Your task to perform on an android device: allow cookies in the chrome app Image 0: 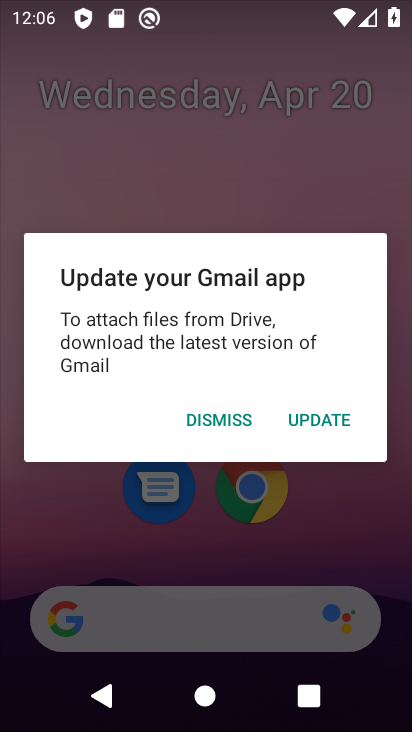
Step 0: press home button
Your task to perform on an android device: allow cookies in the chrome app Image 1: 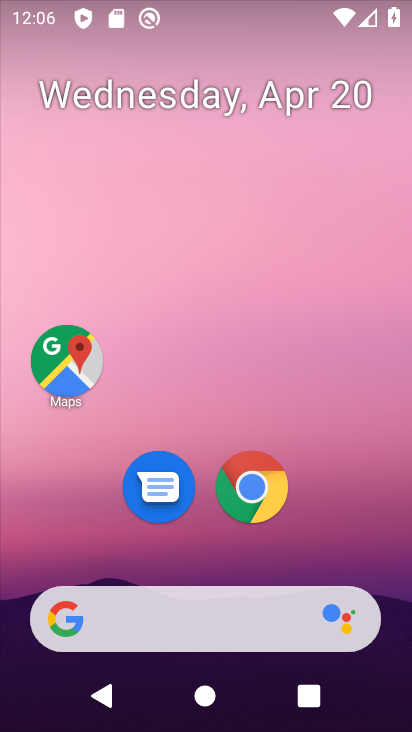
Step 1: drag from (368, 529) to (287, 58)
Your task to perform on an android device: allow cookies in the chrome app Image 2: 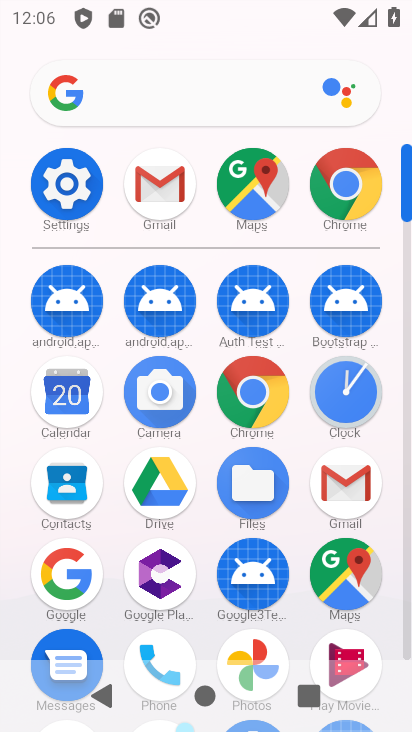
Step 2: click (345, 202)
Your task to perform on an android device: allow cookies in the chrome app Image 3: 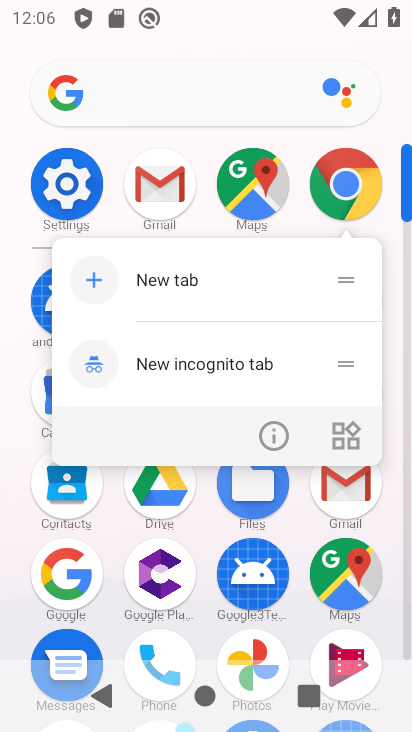
Step 3: click (345, 202)
Your task to perform on an android device: allow cookies in the chrome app Image 4: 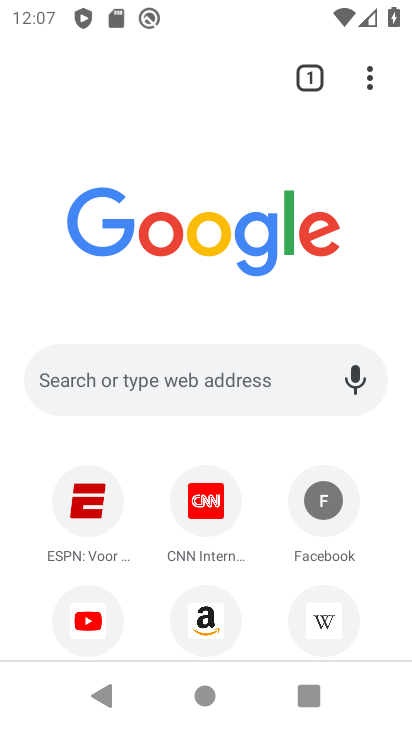
Step 4: click (369, 75)
Your task to perform on an android device: allow cookies in the chrome app Image 5: 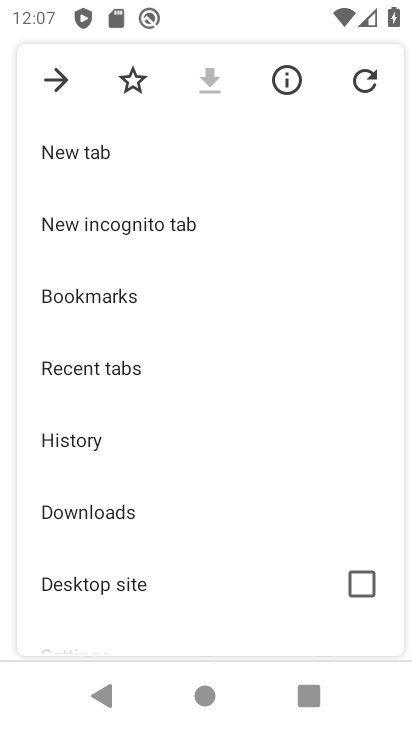
Step 5: click (157, 438)
Your task to perform on an android device: allow cookies in the chrome app Image 6: 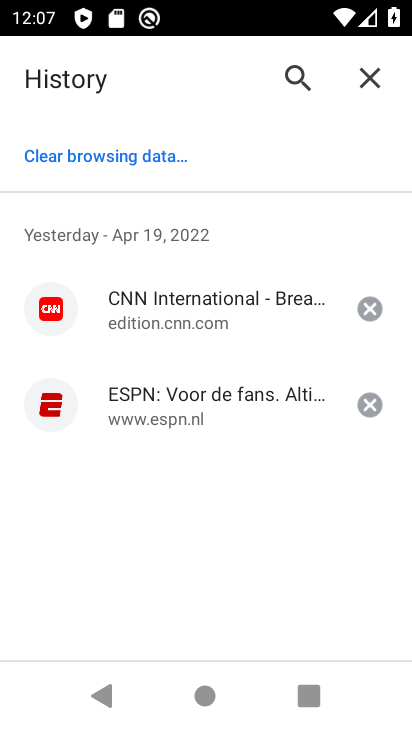
Step 6: click (168, 167)
Your task to perform on an android device: allow cookies in the chrome app Image 7: 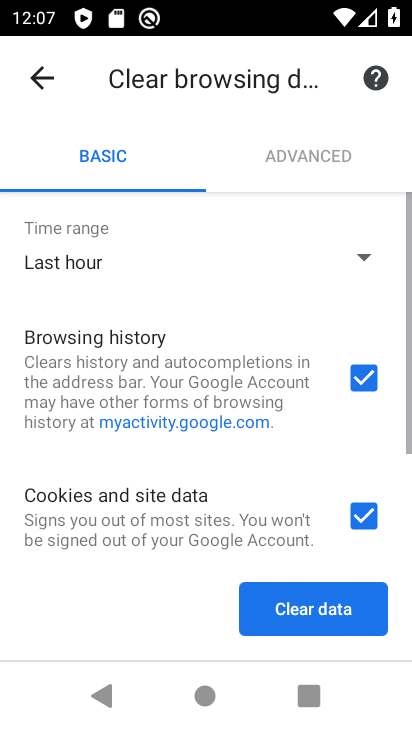
Step 7: click (308, 158)
Your task to perform on an android device: allow cookies in the chrome app Image 8: 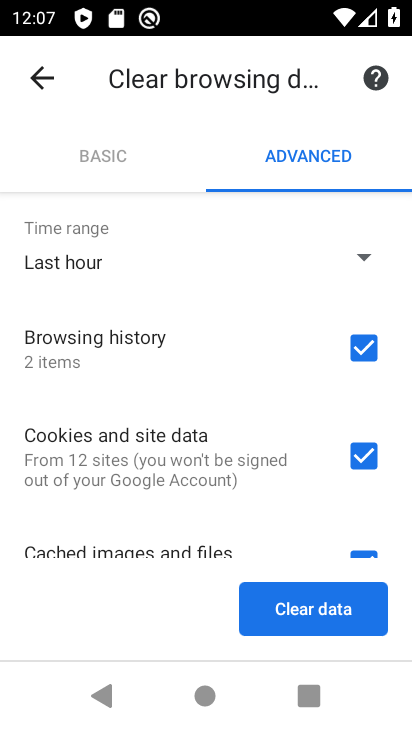
Step 8: task complete